Your task to perform on an android device: turn on javascript in the chrome app Image 0: 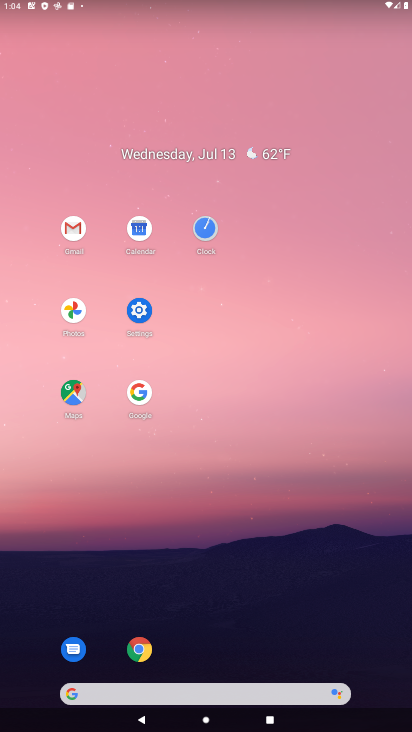
Step 0: click (136, 651)
Your task to perform on an android device: turn on javascript in the chrome app Image 1: 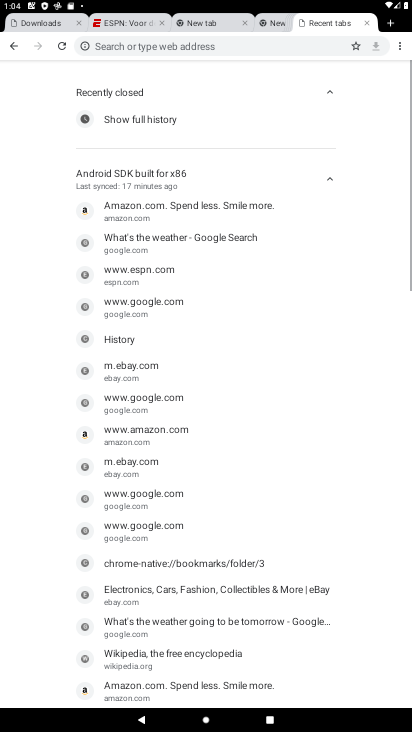
Step 1: click (402, 46)
Your task to perform on an android device: turn on javascript in the chrome app Image 2: 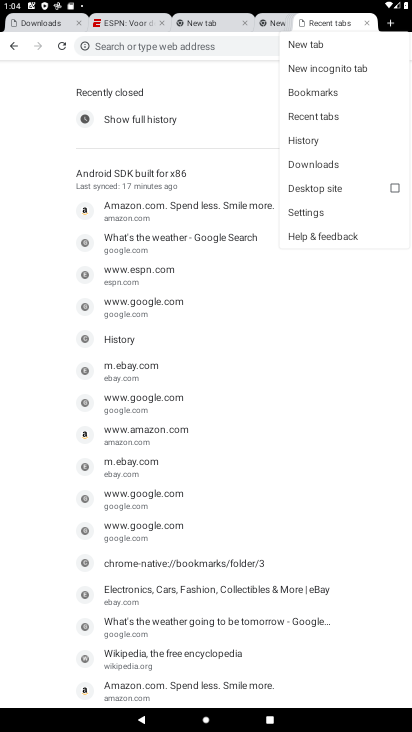
Step 2: click (335, 208)
Your task to perform on an android device: turn on javascript in the chrome app Image 3: 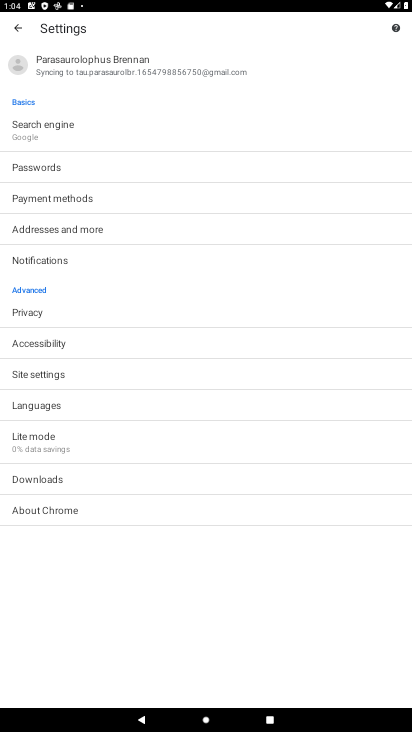
Step 3: click (162, 374)
Your task to perform on an android device: turn on javascript in the chrome app Image 4: 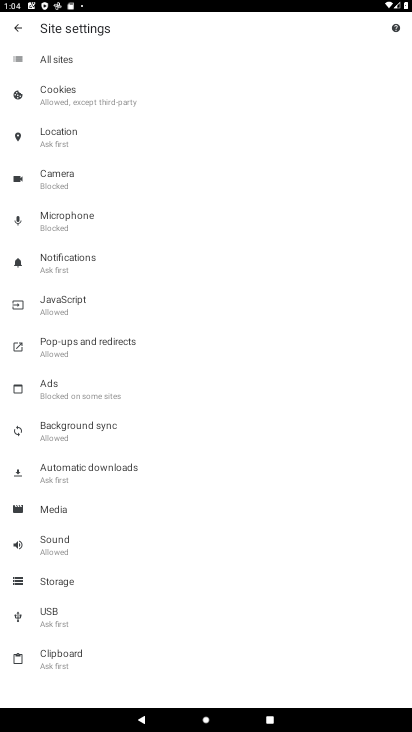
Step 4: click (152, 315)
Your task to perform on an android device: turn on javascript in the chrome app Image 5: 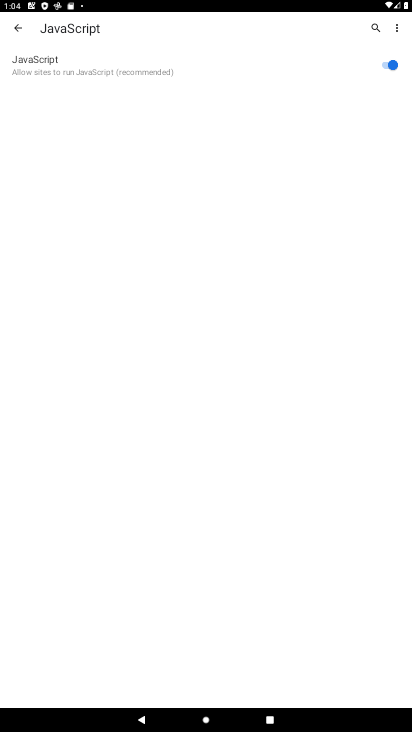
Step 5: task complete